Your task to perform on an android device: Open Reddit.com Image 0: 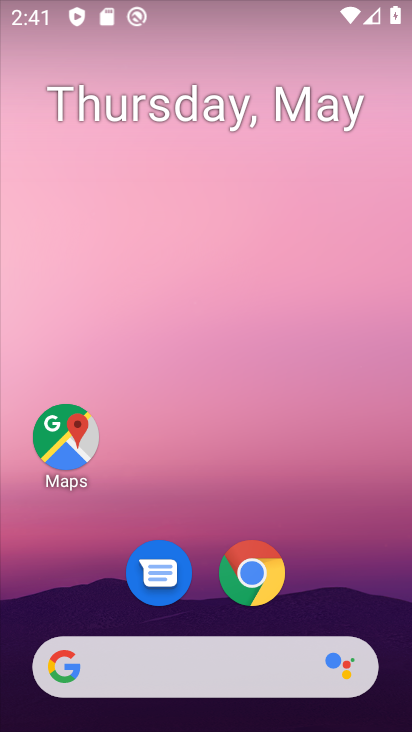
Step 0: click (254, 577)
Your task to perform on an android device: Open Reddit.com Image 1: 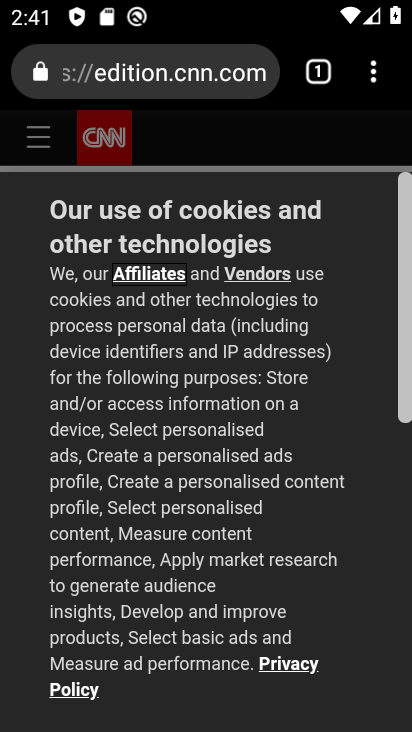
Step 1: click (375, 79)
Your task to perform on an android device: Open Reddit.com Image 2: 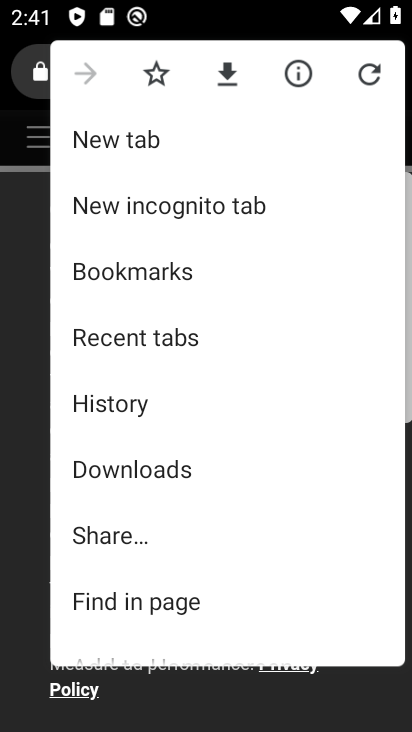
Step 2: click (126, 139)
Your task to perform on an android device: Open Reddit.com Image 3: 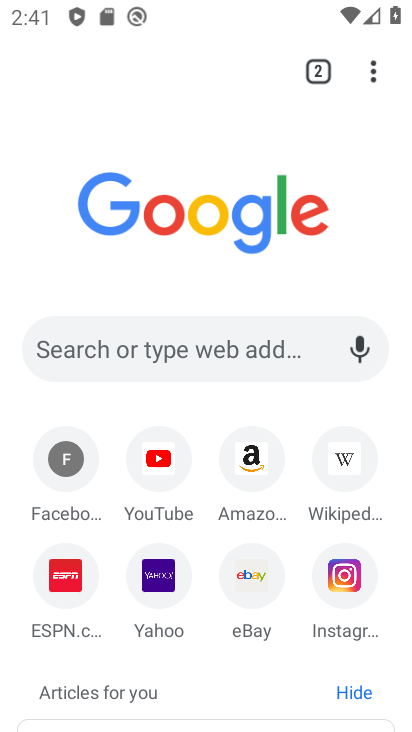
Step 3: click (196, 340)
Your task to perform on an android device: Open Reddit.com Image 4: 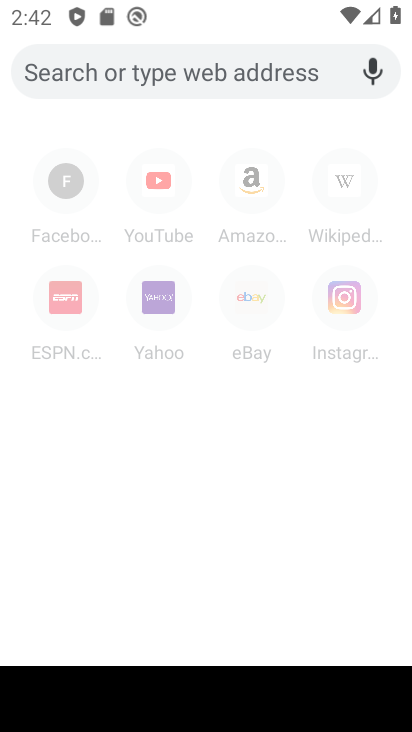
Step 4: type "reddit.com"
Your task to perform on an android device: Open Reddit.com Image 5: 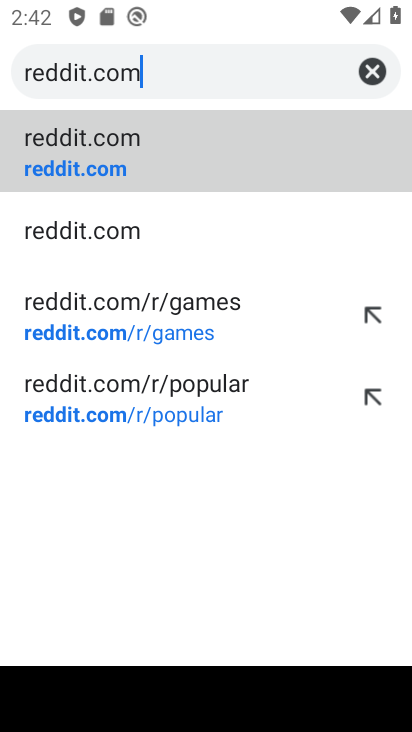
Step 5: click (97, 161)
Your task to perform on an android device: Open Reddit.com Image 6: 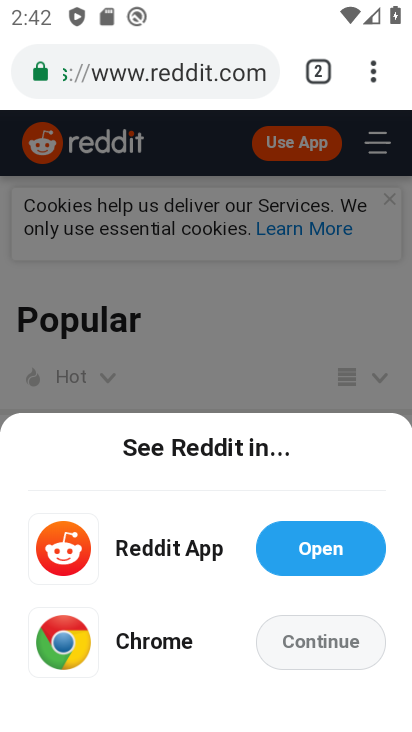
Step 6: task complete